Your task to perform on an android device: open sync settings in chrome Image 0: 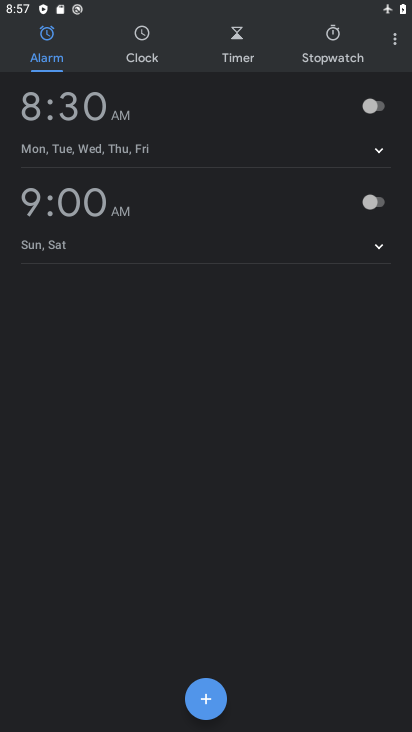
Step 0: press home button
Your task to perform on an android device: open sync settings in chrome Image 1: 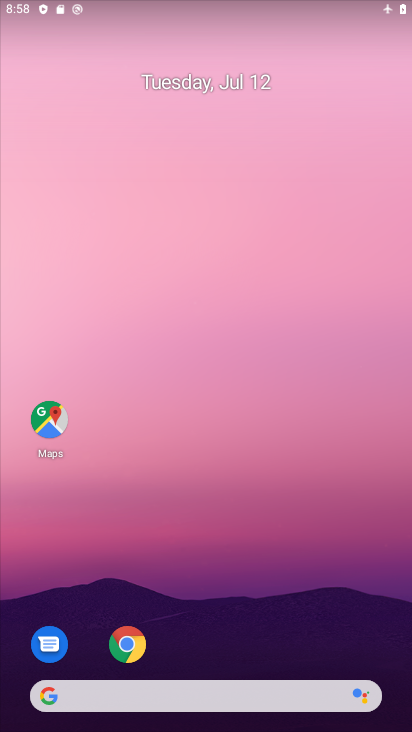
Step 1: click (133, 637)
Your task to perform on an android device: open sync settings in chrome Image 2: 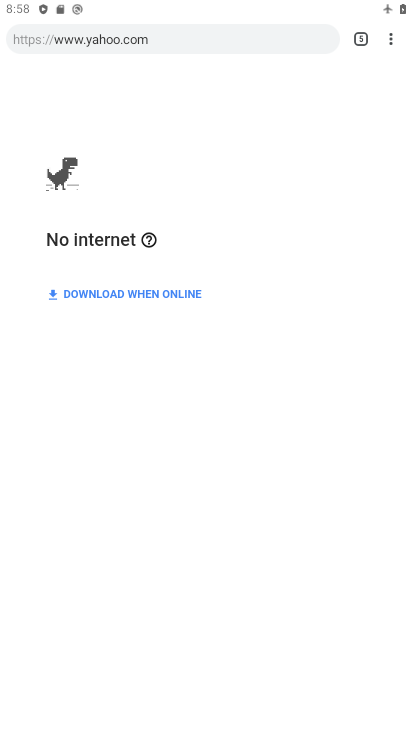
Step 2: click (398, 35)
Your task to perform on an android device: open sync settings in chrome Image 3: 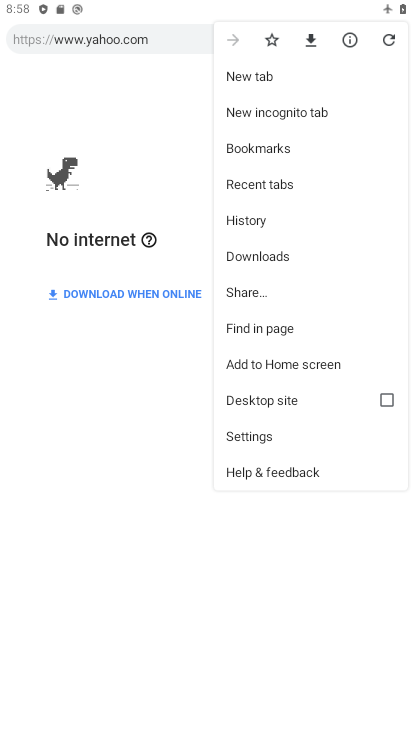
Step 3: click (295, 438)
Your task to perform on an android device: open sync settings in chrome Image 4: 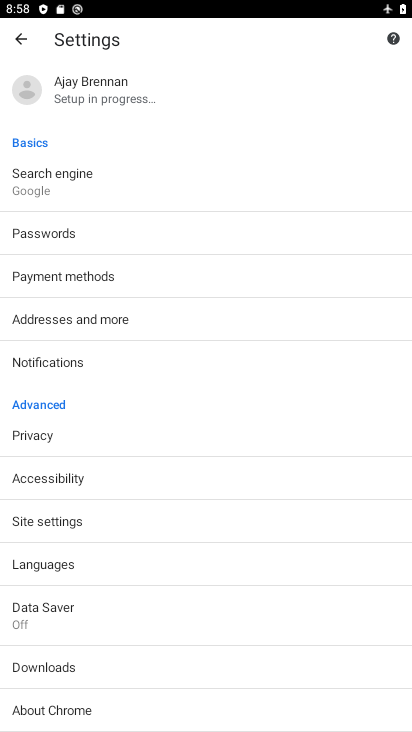
Step 4: click (139, 92)
Your task to perform on an android device: open sync settings in chrome Image 5: 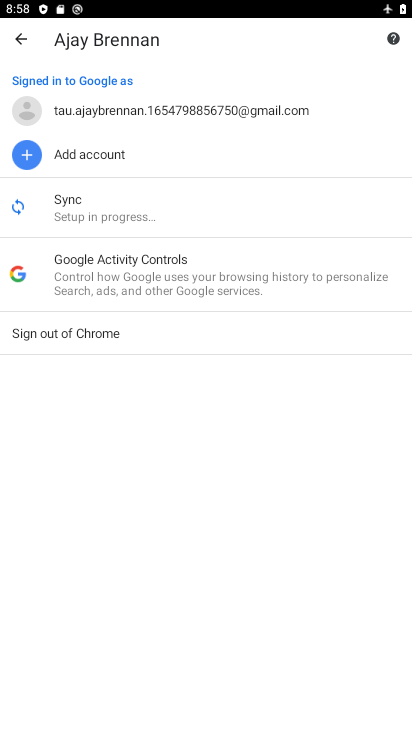
Step 5: click (138, 198)
Your task to perform on an android device: open sync settings in chrome Image 6: 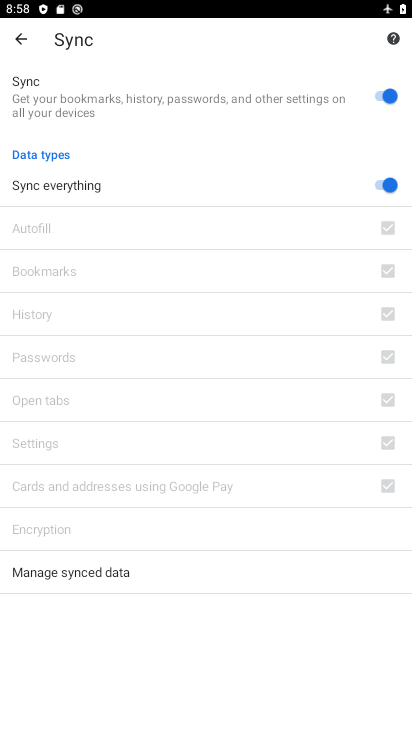
Step 6: task complete